Your task to perform on an android device: Open ESPN.com Image 0: 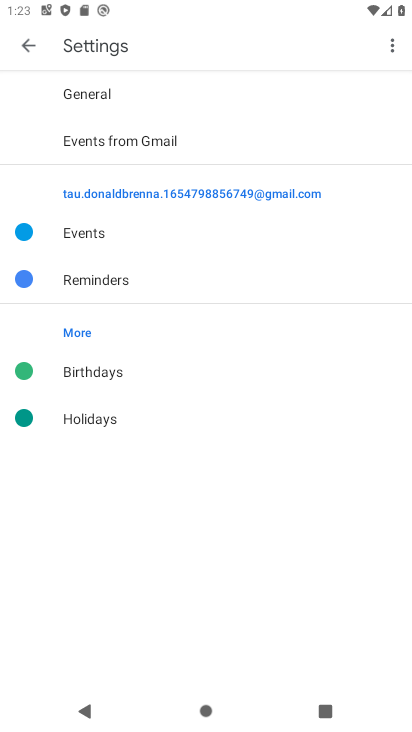
Step 0: press home button
Your task to perform on an android device: Open ESPN.com Image 1: 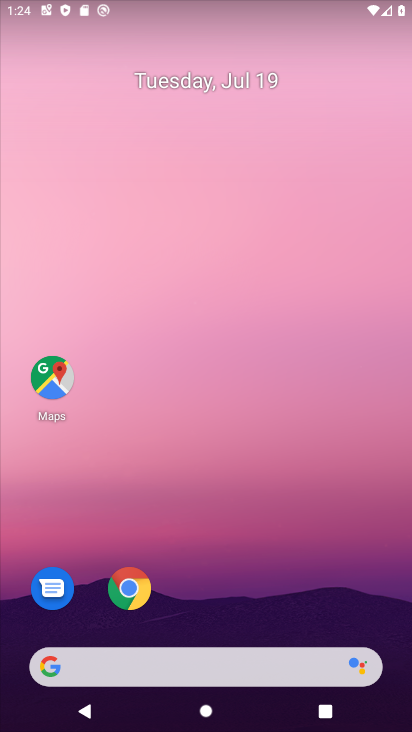
Step 1: click (99, 659)
Your task to perform on an android device: Open ESPN.com Image 2: 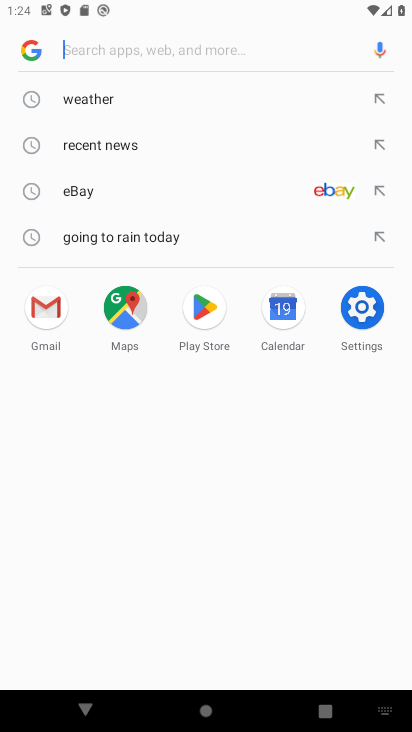
Step 2: click (302, 472)
Your task to perform on an android device: Open ESPN.com Image 3: 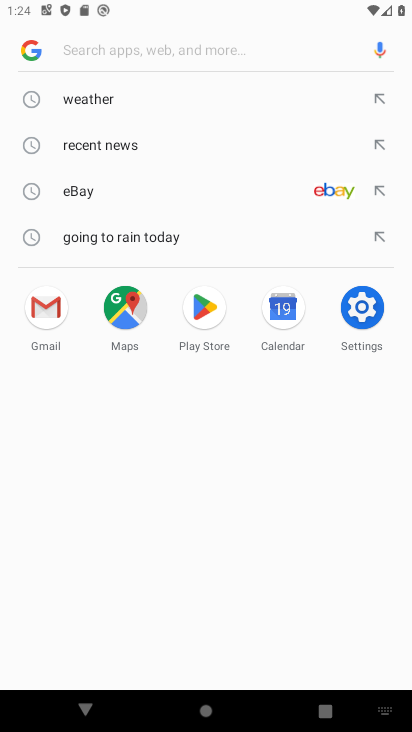
Step 3: type "ESPN.com"
Your task to perform on an android device: Open ESPN.com Image 4: 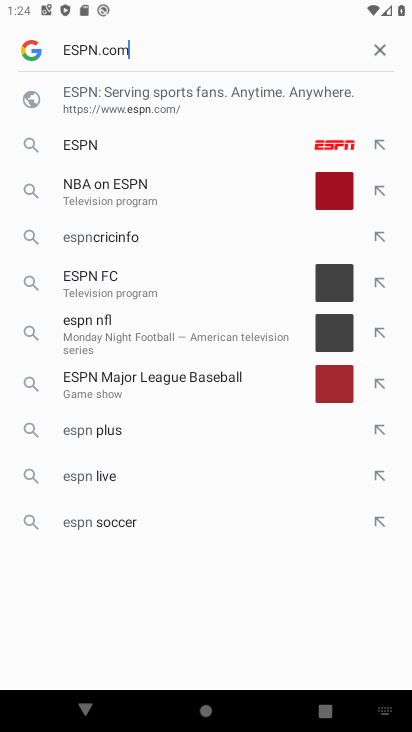
Step 4: type ""
Your task to perform on an android device: Open ESPN.com Image 5: 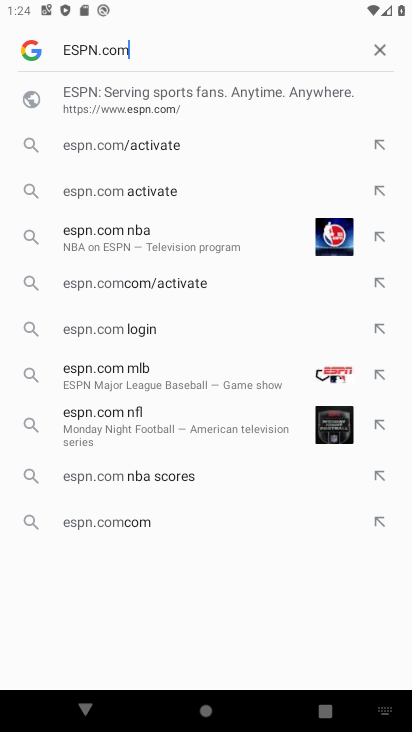
Step 5: click (69, 84)
Your task to perform on an android device: Open ESPN.com Image 6: 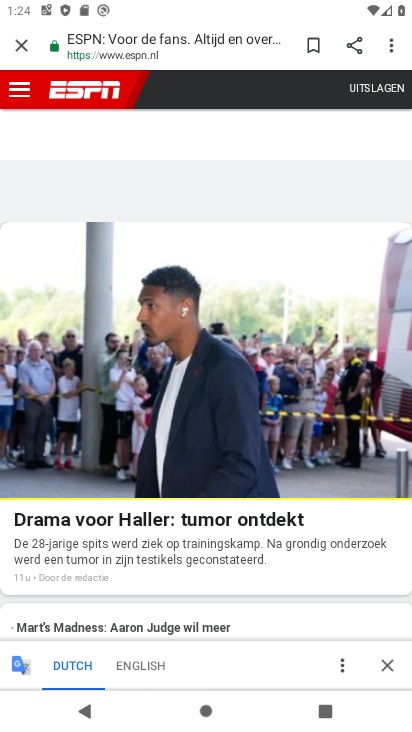
Step 6: task complete